Your task to perform on an android device: Go to CNN.com Image 0: 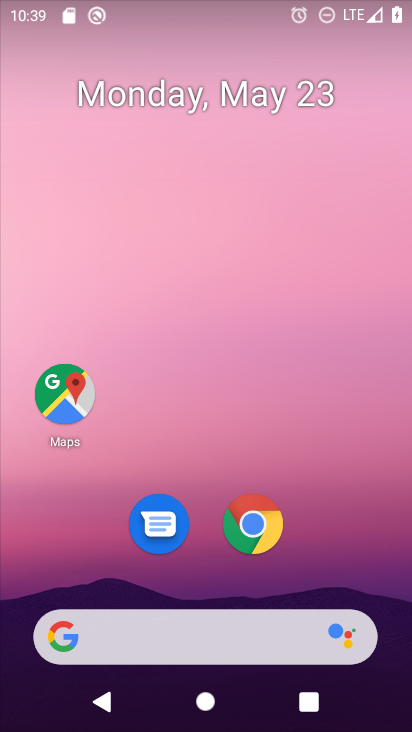
Step 0: click (255, 636)
Your task to perform on an android device: Go to CNN.com Image 1: 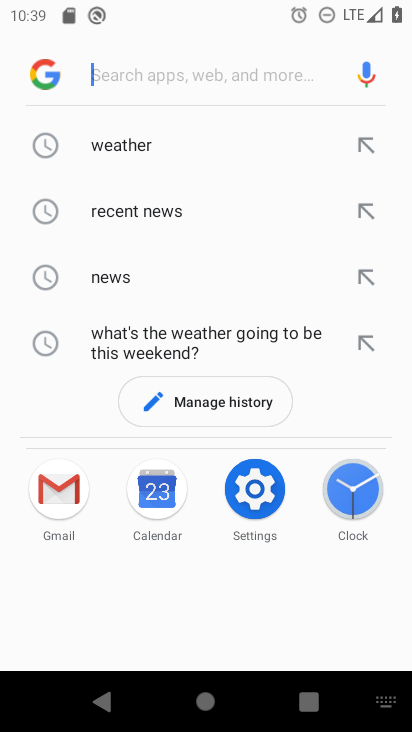
Step 1: type "cnn.com"
Your task to perform on an android device: Go to CNN.com Image 2: 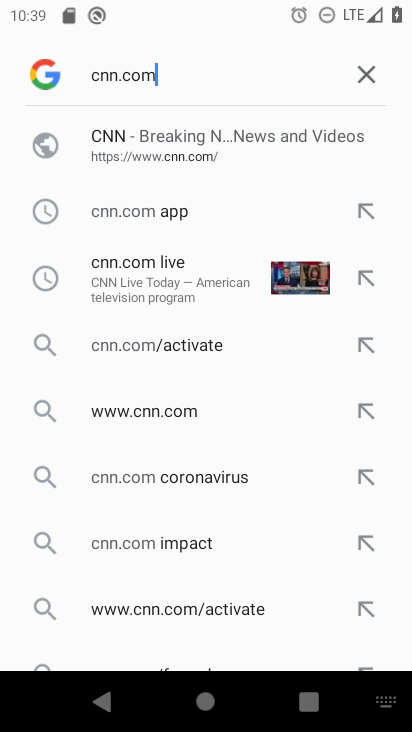
Step 2: click (122, 143)
Your task to perform on an android device: Go to CNN.com Image 3: 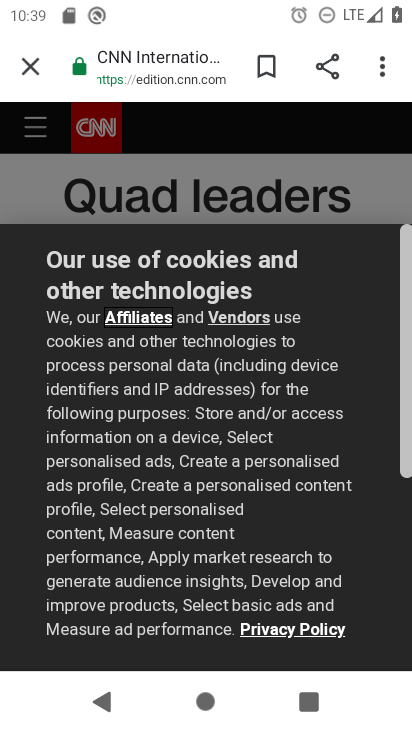
Step 3: task complete